Your task to perform on an android device: toggle improve location accuracy Image 0: 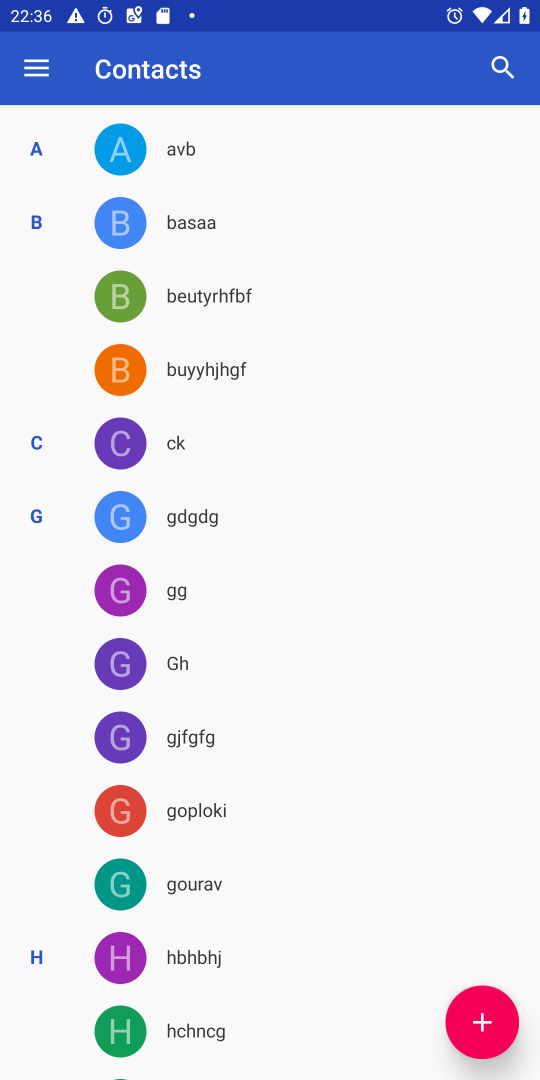
Step 0: press home button
Your task to perform on an android device: toggle improve location accuracy Image 1: 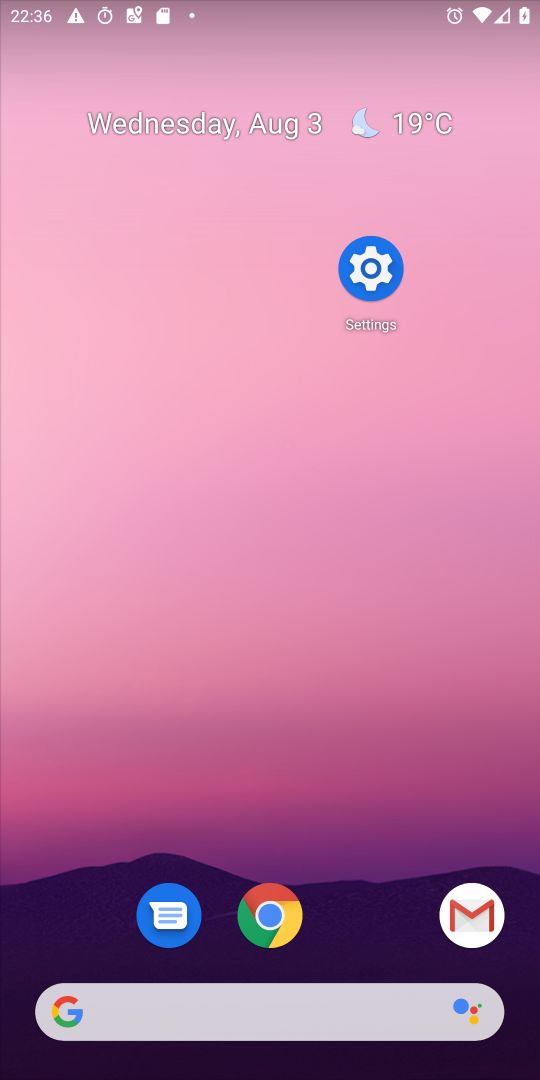
Step 1: drag from (337, 1019) to (304, 477)
Your task to perform on an android device: toggle improve location accuracy Image 2: 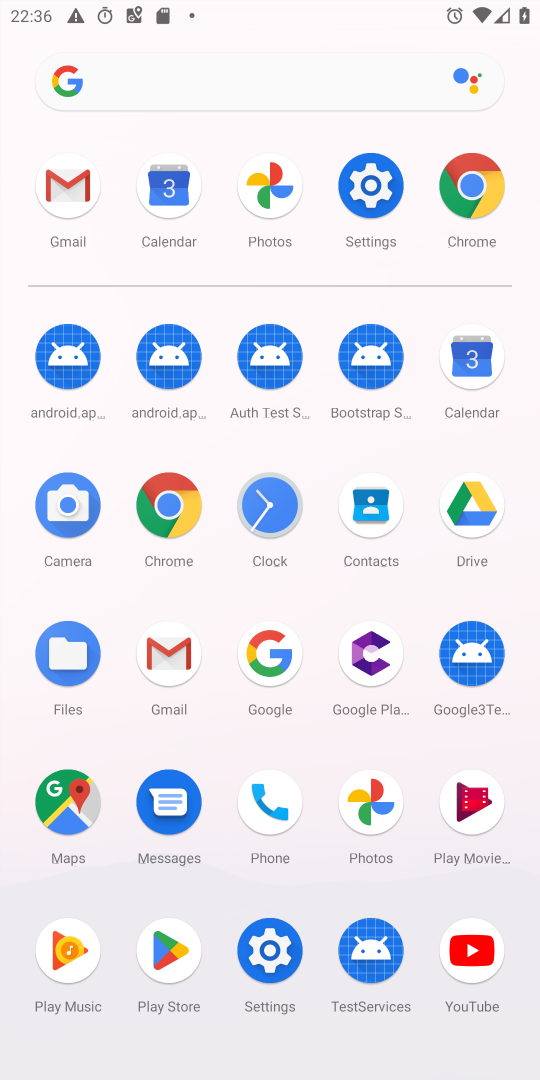
Step 2: click (366, 209)
Your task to perform on an android device: toggle improve location accuracy Image 3: 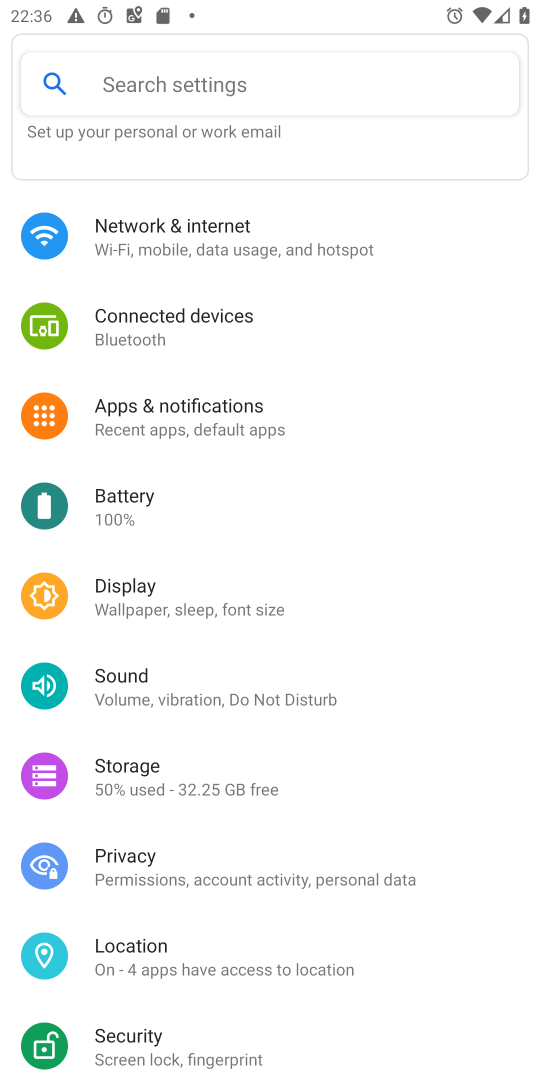
Step 3: click (156, 61)
Your task to perform on an android device: toggle improve location accuracy Image 4: 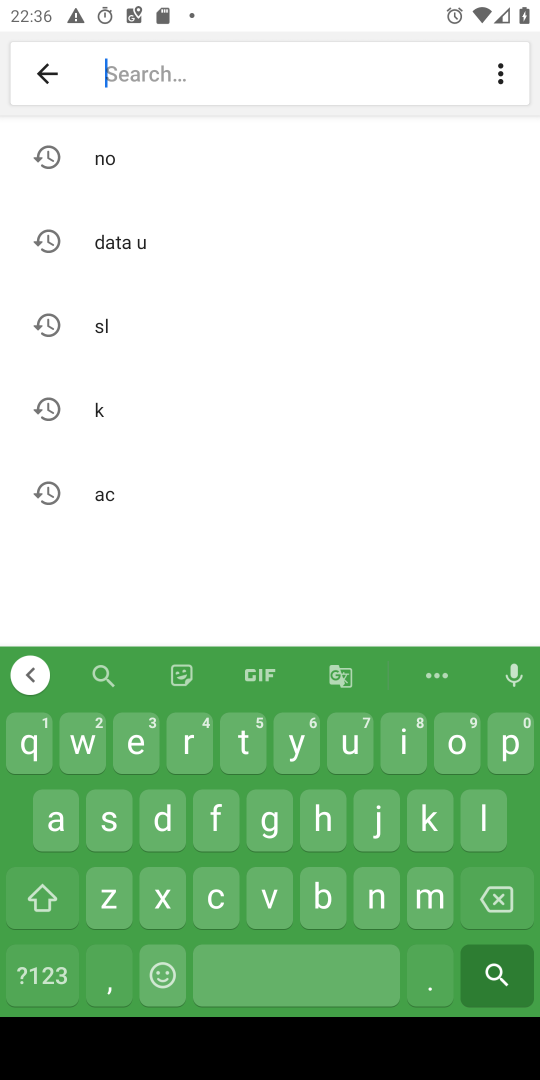
Step 4: click (482, 828)
Your task to perform on an android device: toggle improve location accuracy Image 5: 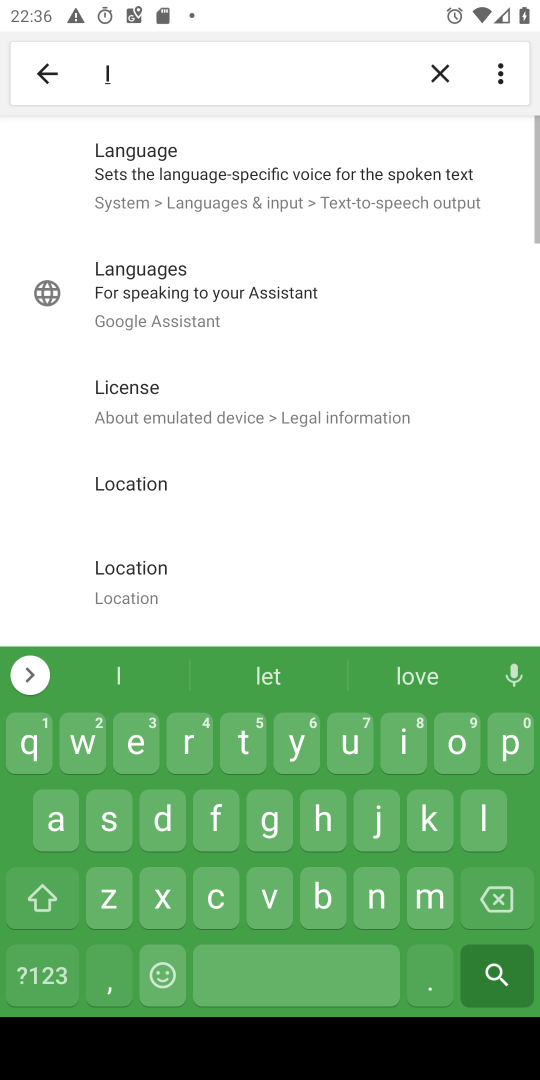
Step 5: click (447, 746)
Your task to perform on an android device: toggle improve location accuracy Image 6: 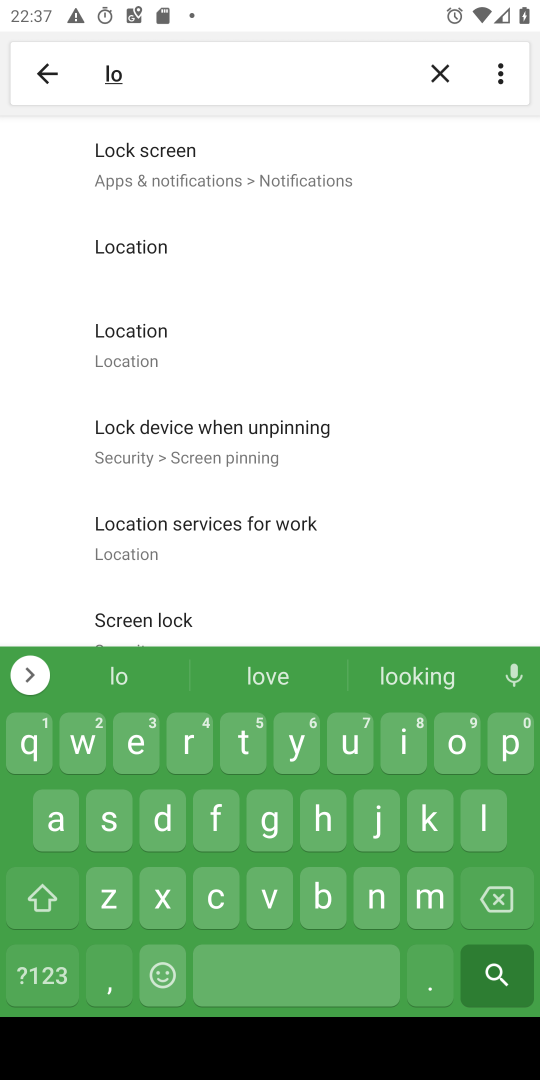
Step 6: click (166, 341)
Your task to perform on an android device: toggle improve location accuracy Image 7: 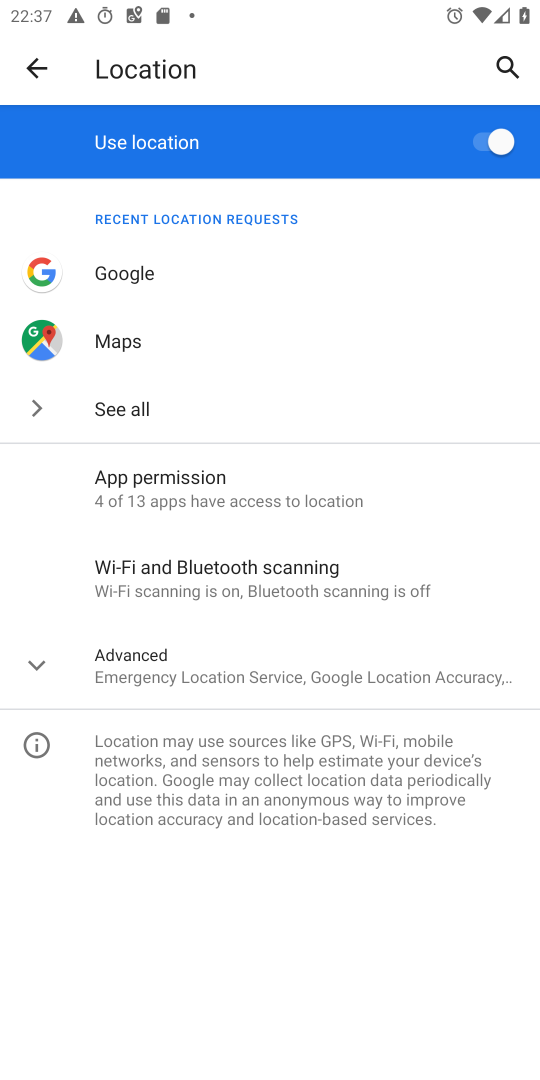
Step 7: click (120, 619)
Your task to perform on an android device: toggle improve location accuracy Image 8: 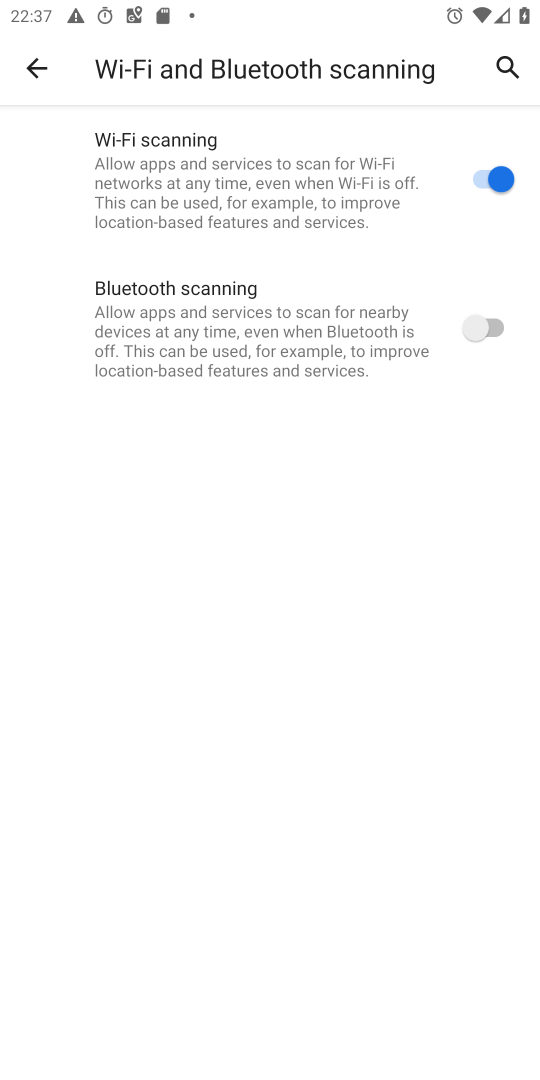
Step 8: click (32, 43)
Your task to perform on an android device: toggle improve location accuracy Image 9: 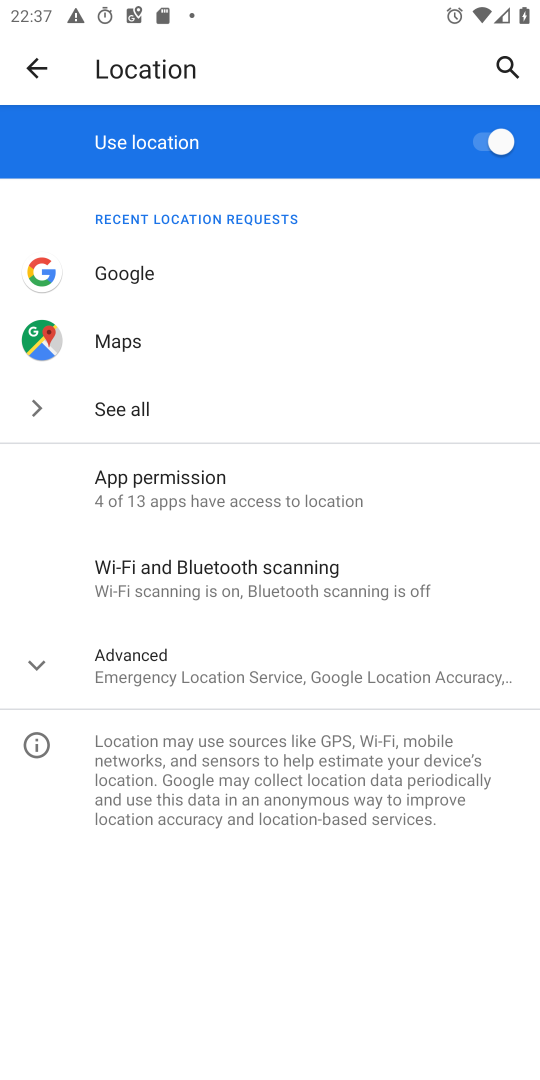
Step 9: click (106, 672)
Your task to perform on an android device: toggle improve location accuracy Image 10: 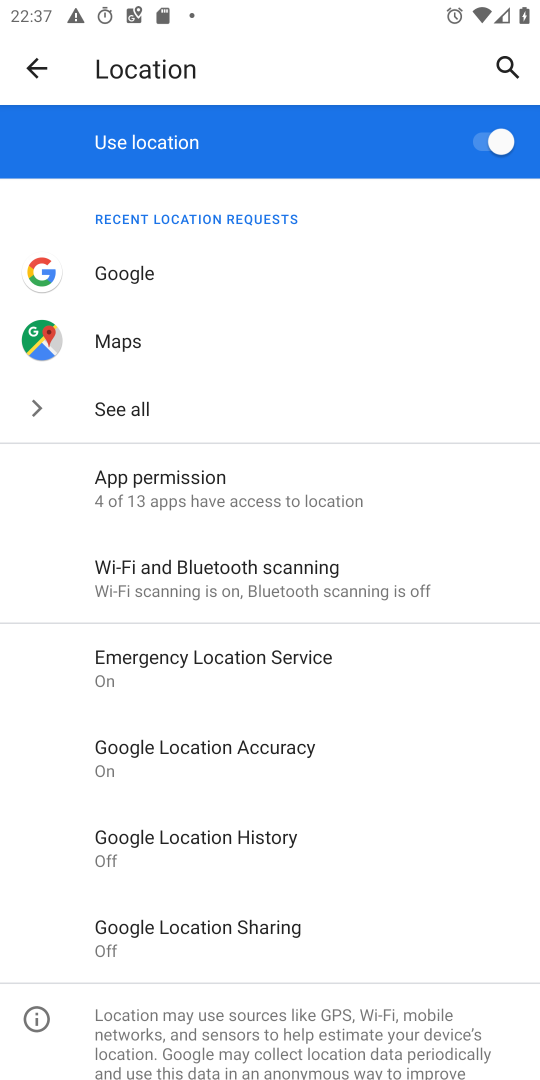
Step 10: click (289, 746)
Your task to perform on an android device: toggle improve location accuracy Image 11: 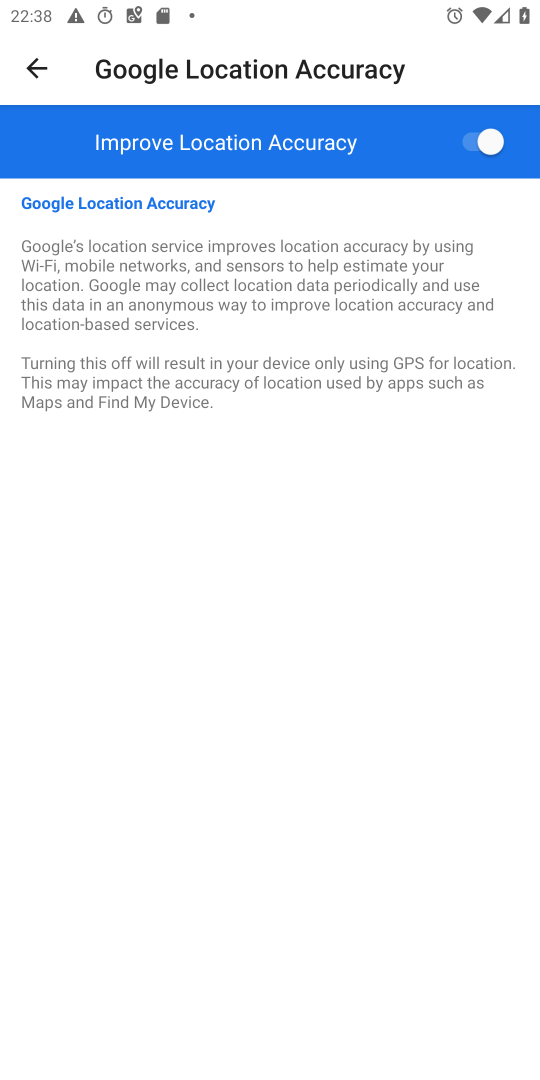
Step 11: task complete